Your task to perform on an android device: delete the emails in spam in the gmail app Image 0: 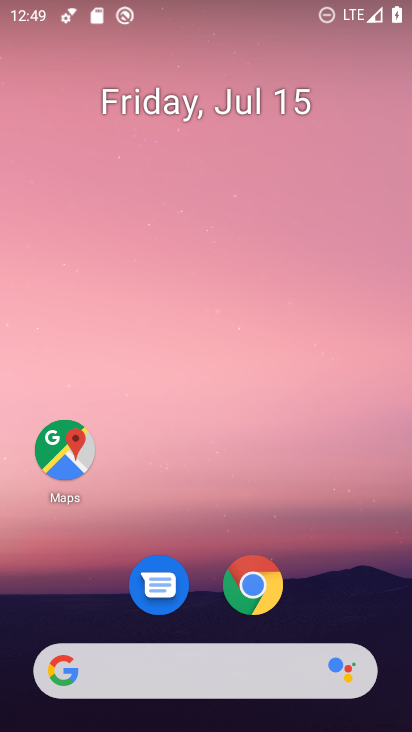
Step 0: drag from (266, 472) to (268, 51)
Your task to perform on an android device: delete the emails in spam in the gmail app Image 1: 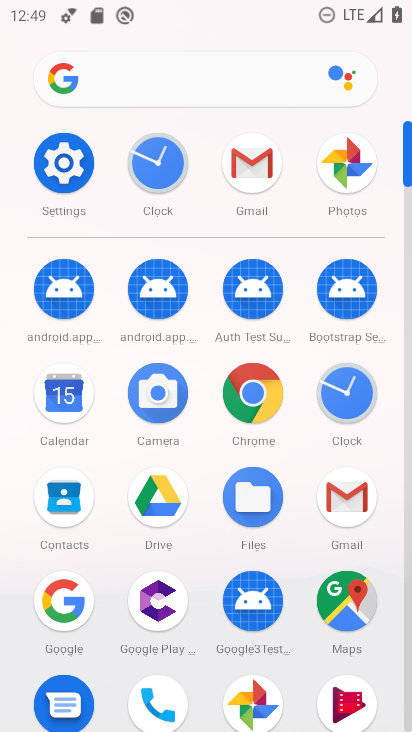
Step 1: click (248, 170)
Your task to perform on an android device: delete the emails in spam in the gmail app Image 2: 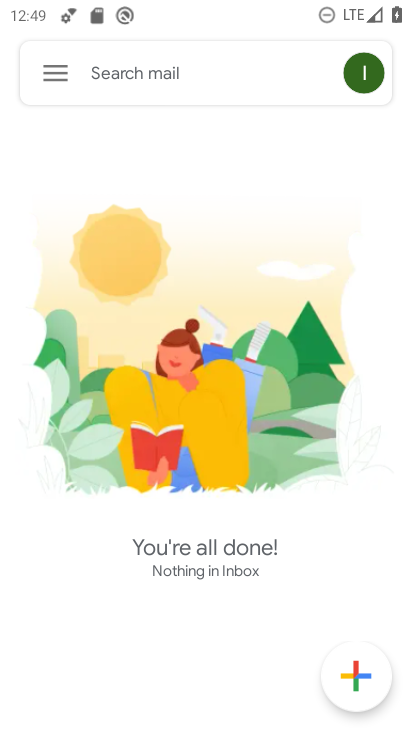
Step 2: click (45, 78)
Your task to perform on an android device: delete the emails in spam in the gmail app Image 3: 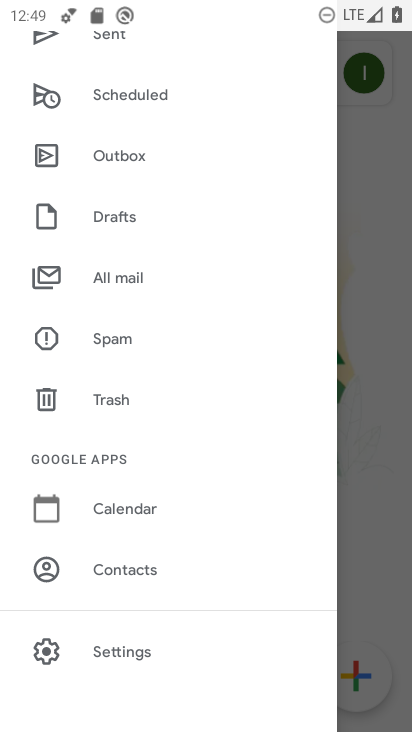
Step 3: click (105, 340)
Your task to perform on an android device: delete the emails in spam in the gmail app Image 4: 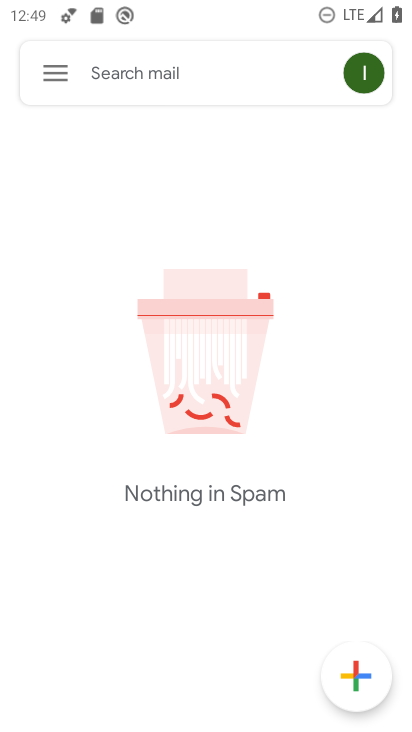
Step 4: task complete